Your task to perform on an android device: add a contact Image 0: 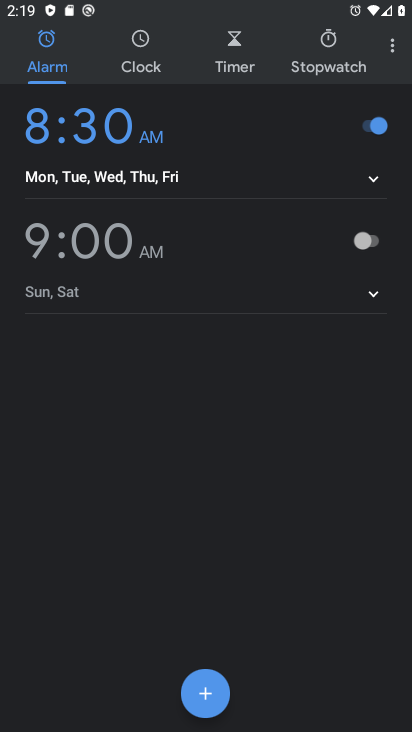
Step 0: press back button
Your task to perform on an android device: add a contact Image 1: 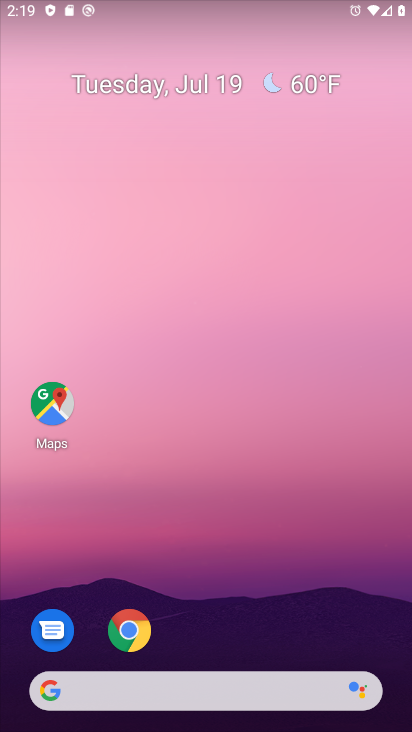
Step 1: click (136, 265)
Your task to perform on an android device: add a contact Image 2: 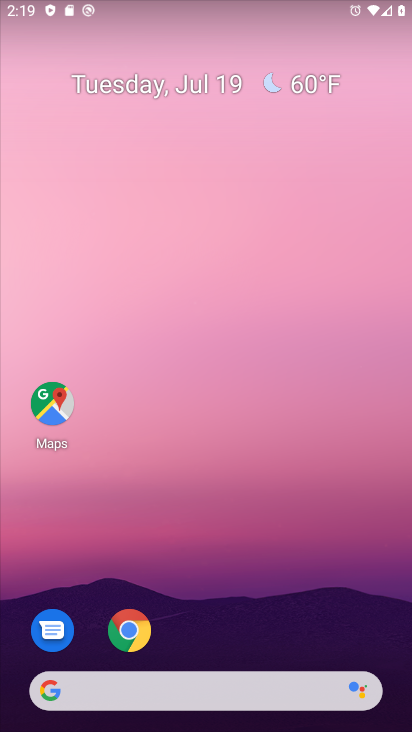
Step 2: drag from (226, 555) to (221, 39)
Your task to perform on an android device: add a contact Image 3: 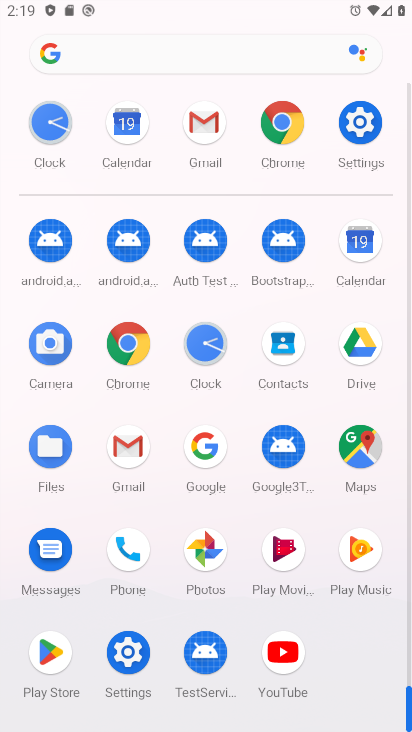
Step 3: drag from (227, 145) to (227, 76)
Your task to perform on an android device: add a contact Image 4: 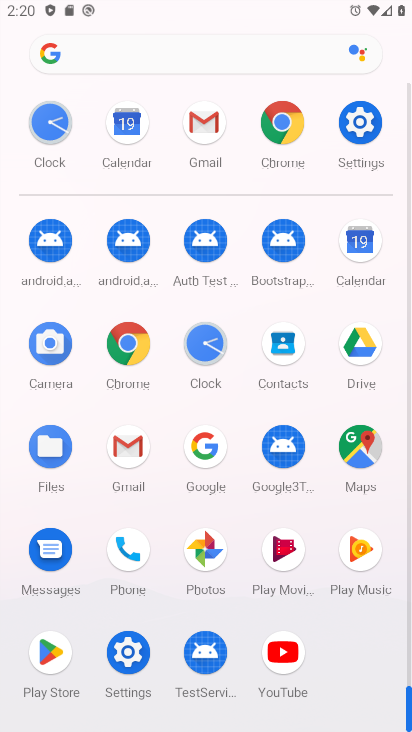
Step 4: click (282, 354)
Your task to perform on an android device: add a contact Image 5: 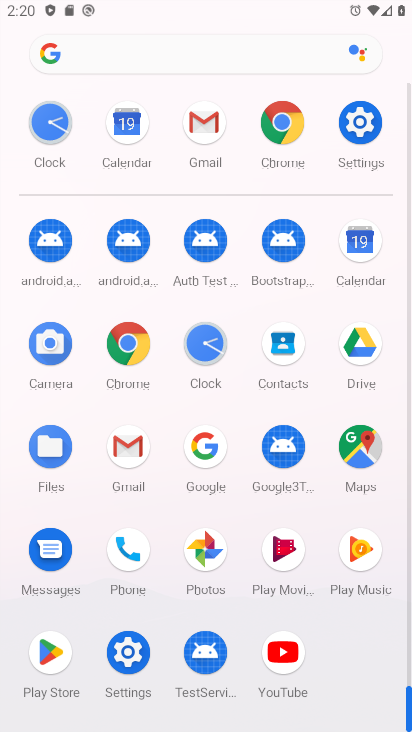
Step 5: click (282, 352)
Your task to perform on an android device: add a contact Image 6: 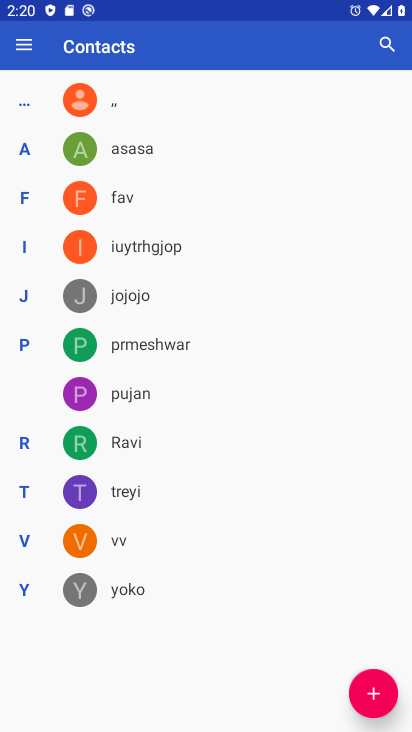
Step 6: click (371, 690)
Your task to perform on an android device: add a contact Image 7: 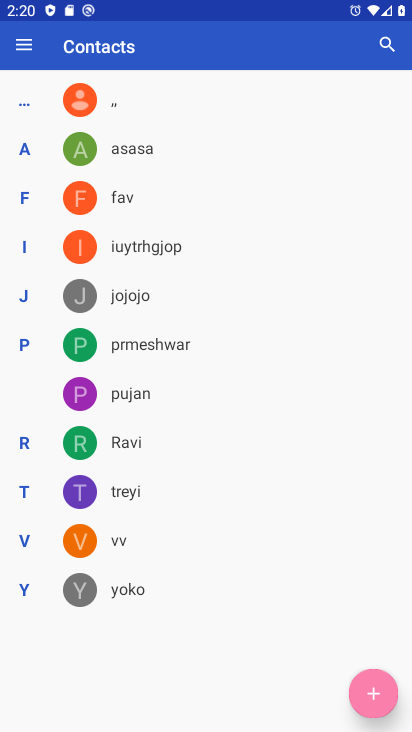
Step 7: click (370, 692)
Your task to perform on an android device: add a contact Image 8: 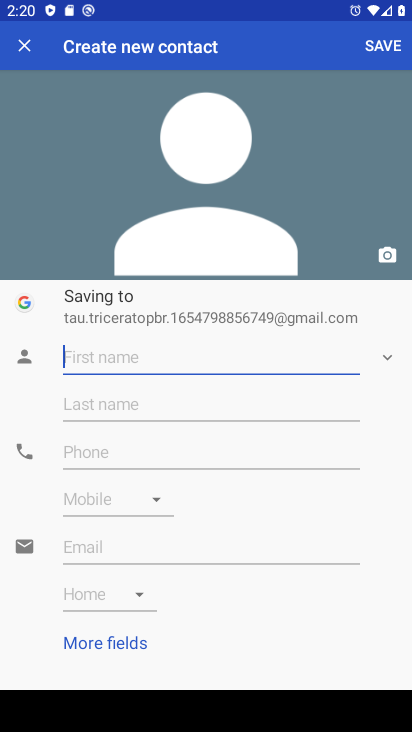
Step 8: type "jhjhvjhhsvjhs"
Your task to perform on an android device: add a contact Image 9: 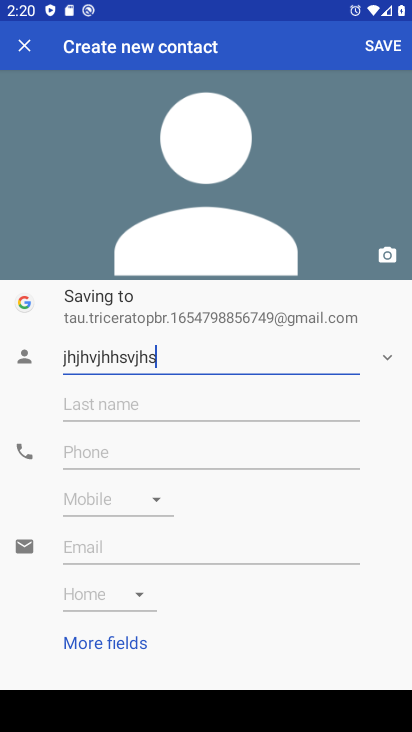
Step 9: click (81, 465)
Your task to perform on an android device: add a contact Image 10: 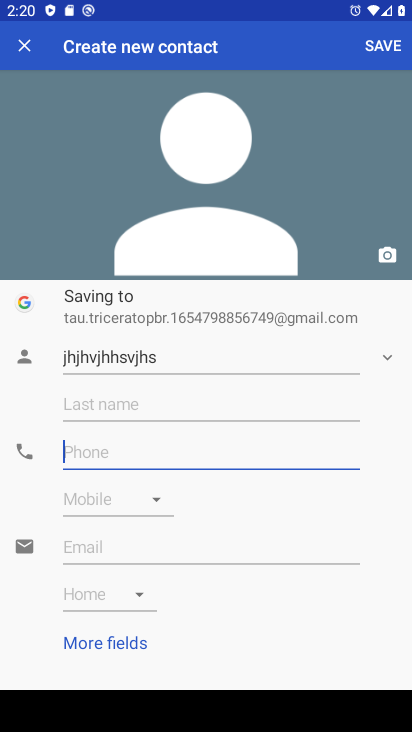
Step 10: click (80, 457)
Your task to perform on an android device: add a contact Image 11: 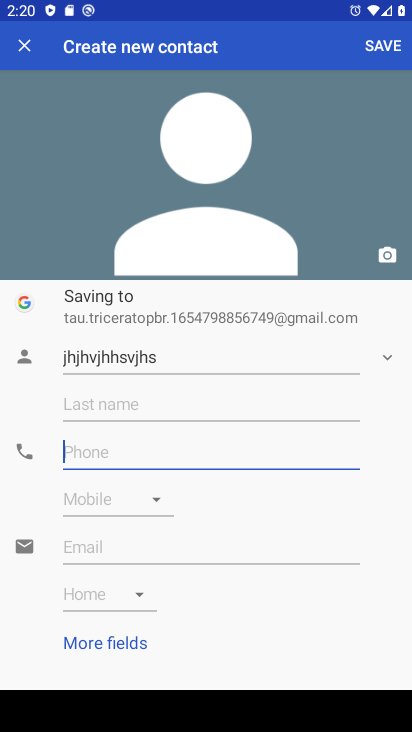
Step 11: type "6387e873287327"
Your task to perform on an android device: add a contact Image 12: 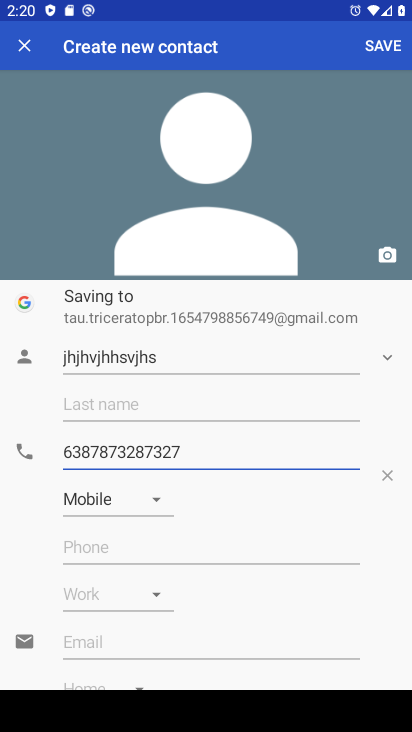
Step 12: click (380, 49)
Your task to perform on an android device: add a contact Image 13: 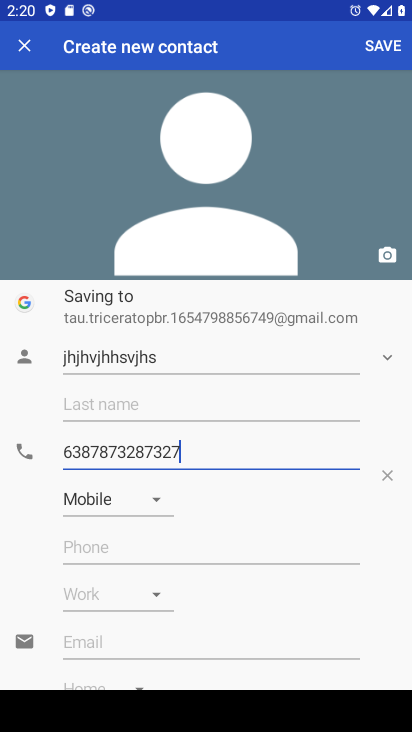
Step 13: click (380, 49)
Your task to perform on an android device: add a contact Image 14: 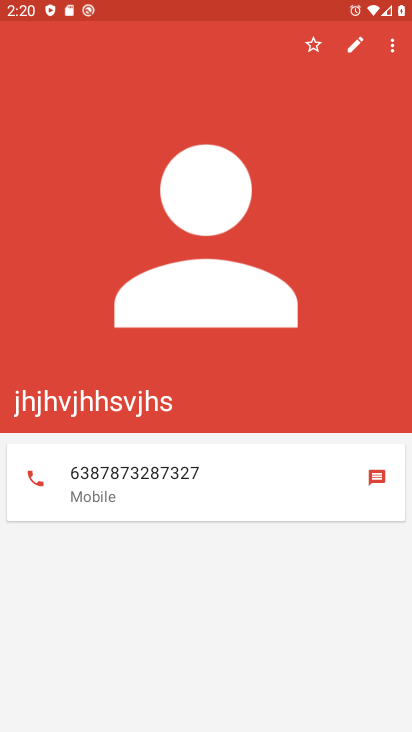
Step 14: task complete